Your task to perform on an android device: delete a single message in the gmail app Image 0: 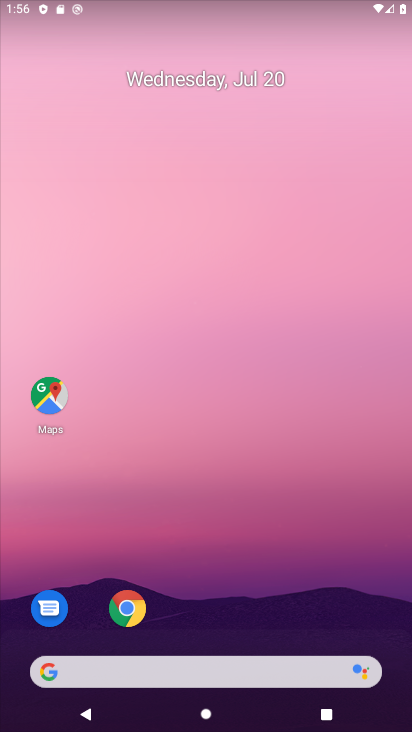
Step 0: drag from (233, 628) to (229, 88)
Your task to perform on an android device: delete a single message in the gmail app Image 1: 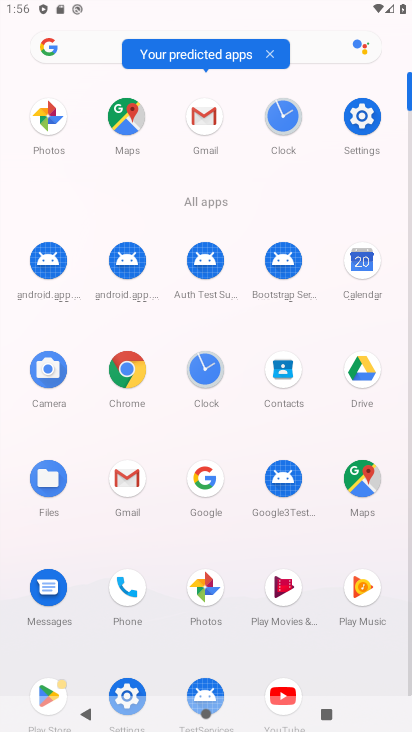
Step 1: click (124, 480)
Your task to perform on an android device: delete a single message in the gmail app Image 2: 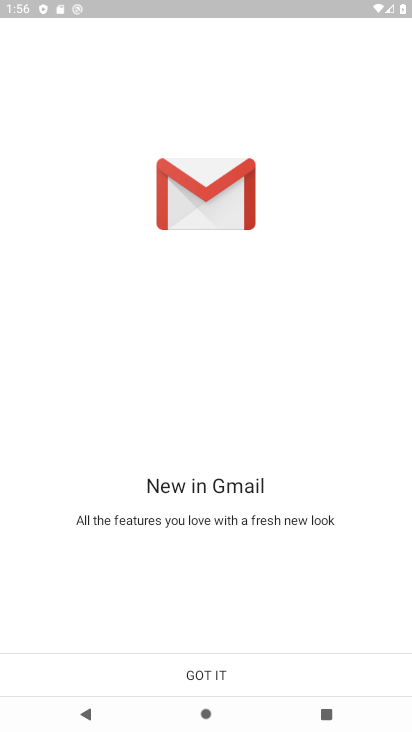
Step 2: click (209, 671)
Your task to perform on an android device: delete a single message in the gmail app Image 3: 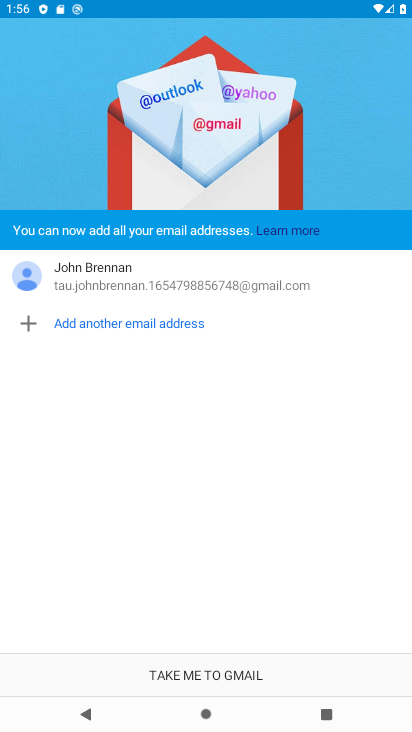
Step 3: click (198, 672)
Your task to perform on an android device: delete a single message in the gmail app Image 4: 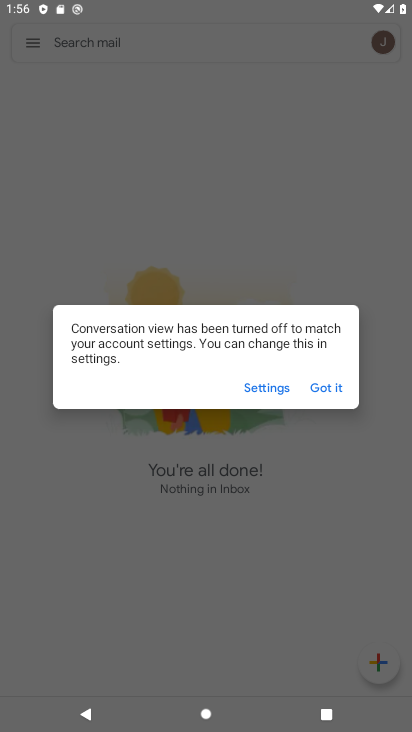
Step 4: click (330, 392)
Your task to perform on an android device: delete a single message in the gmail app Image 5: 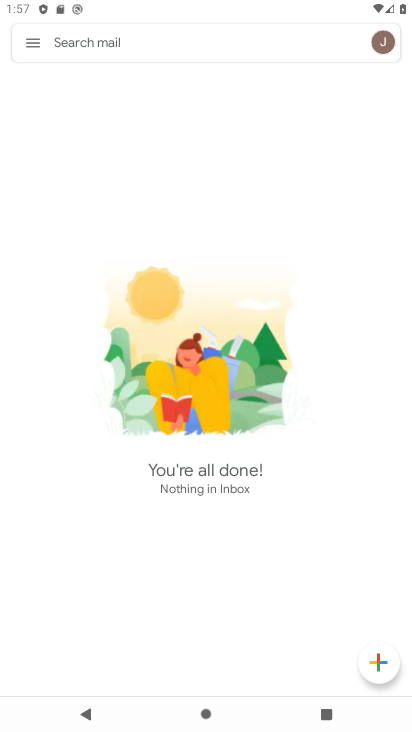
Step 5: task complete